Your task to perform on an android device: Go to location settings Image 0: 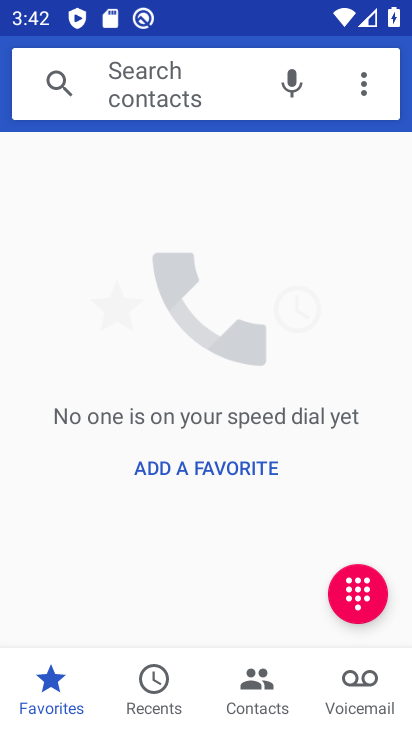
Step 0: press home button
Your task to perform on an android device: Go to location settings Image 1: 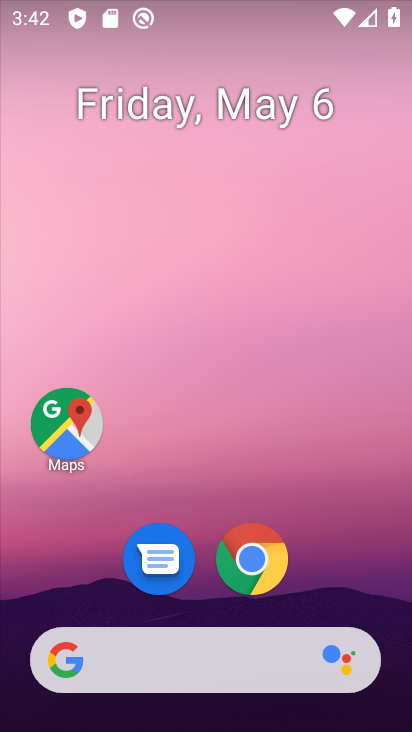
Step 1: drag from (190, 618) to (224, 230)
Your task to perform on an android device: Go to location settings Image 2: 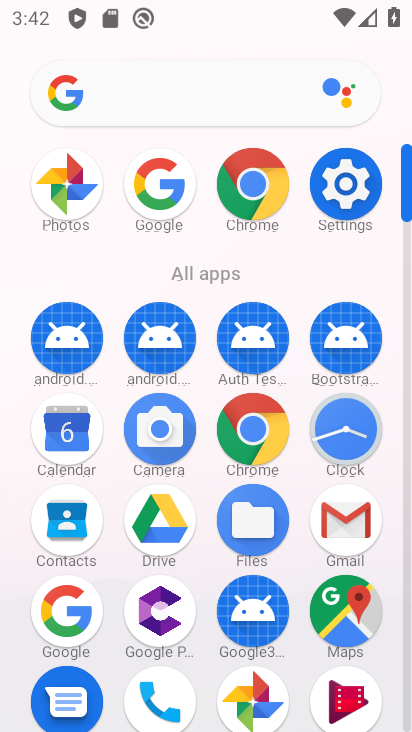
Step 2: click (354, 196)
Your task to perform on an android device: Go to location settings Image 3: 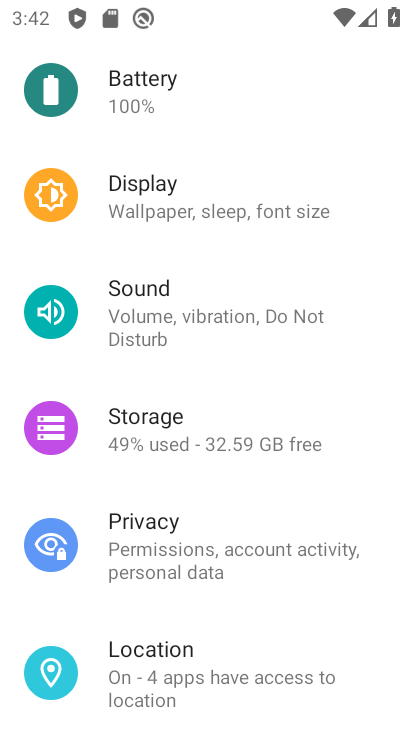
Step 3: click (195, 657)
Your task to perform on an android device: Go to location settings Image 4: 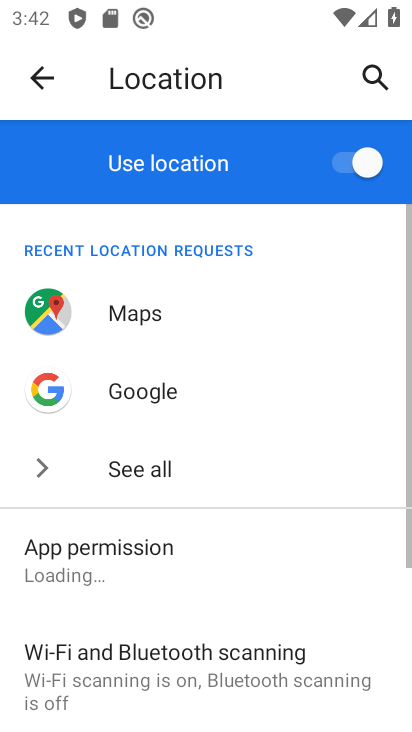
Step 4: drag from (187, 696) to (218, 335)
Your task to perform on an android device: Go to location settings Image 5: 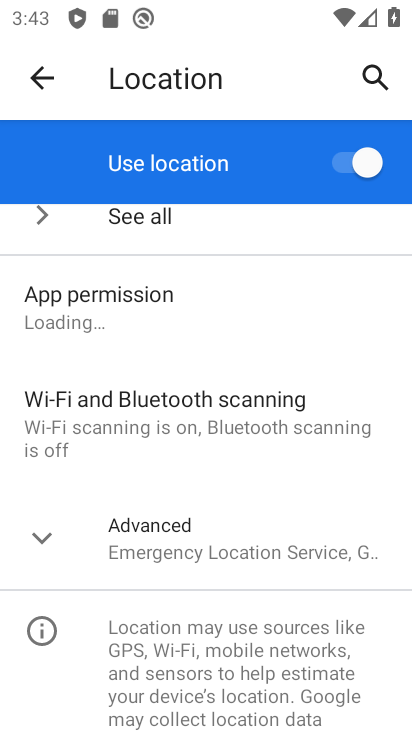
Step 5: click (152, 551)
Your task to perform on an android device: Go to location settings Image 6: 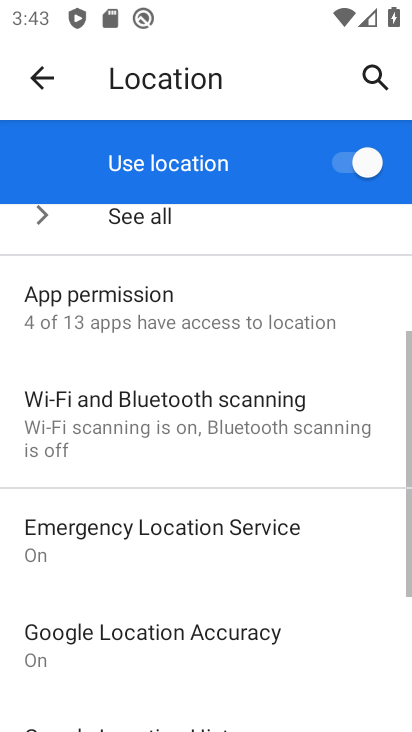
Step 6: task complete